Your task to perform on an android device: Go to Yahoo.com Image 0: 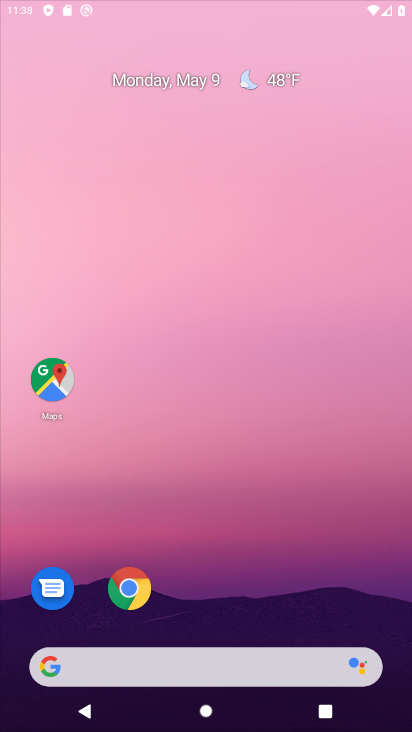
Step 0: drag from (231, 520) to (300, 269)
Your task to perform on an android device: Go to Yahoo.com Image 1: 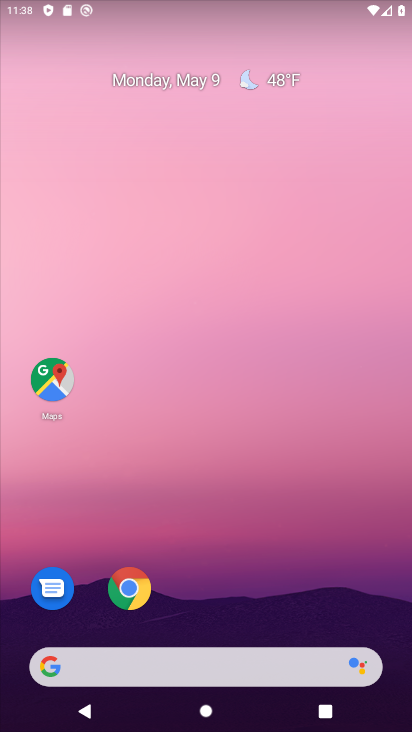
Step 1: drag from (279, 505) to (322, 197)
Your task to perform on an android device: Go to Yahoo.com Image 2: 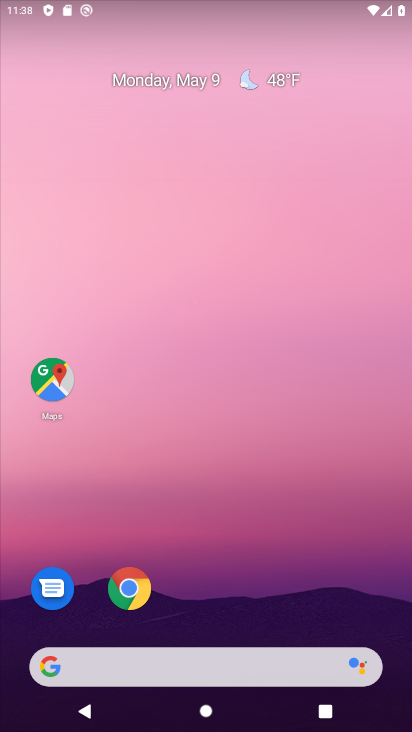
Step 2: drag from (252, 517) to (292, 95)
Your task to perform on an android device: Go to Yahoo.com Image 3: 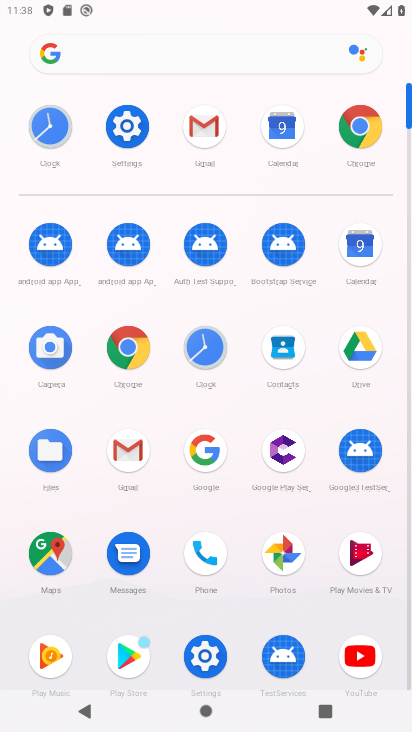
Step 3: click (127, 342)
Your task to perform on an android device: Go to Yahoo.com Image 4: 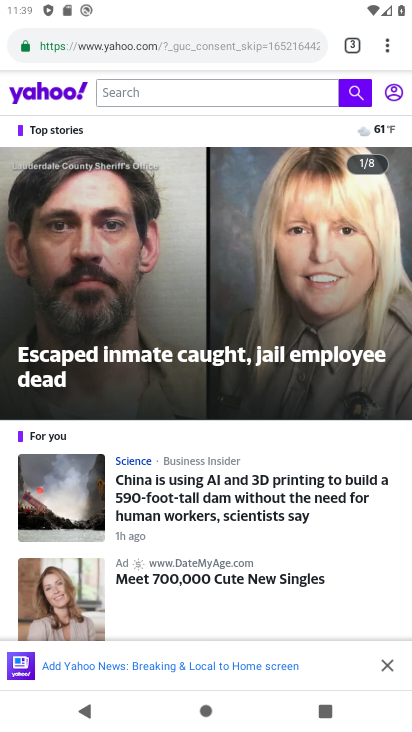
Step 4: task complete